Your task to perform on an android device: remove spam from my inbox in the gmail app Image 0: 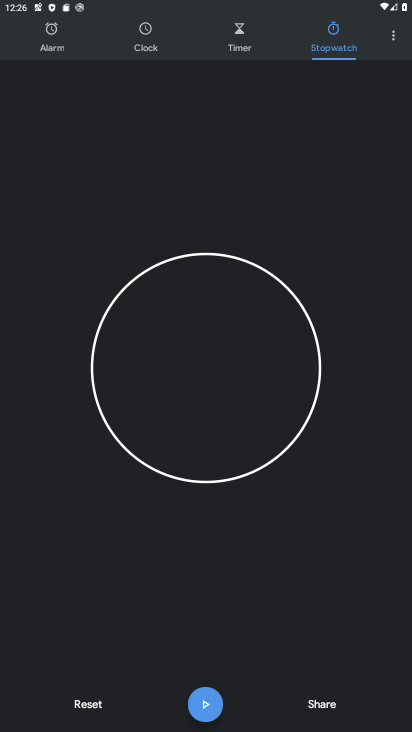
Step 0: press home button
Your task to perform on an android device: remove spam from my inbox in the gmail app Image 1: 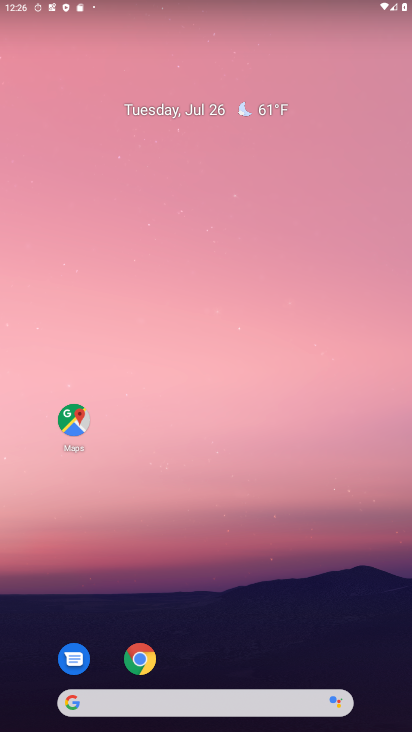
Step 1: drag from (38, 682) to (115, 304)
Your task to perform on an android device: remove spam from my inbox in the gmail app Image 2: 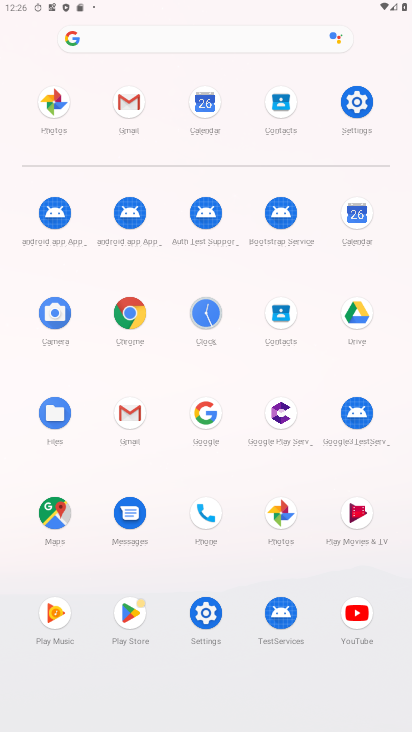
Step 2: click (110, 404)
Your task to perform on an android device: remove spam from my inbox in the gmail app Image 3: 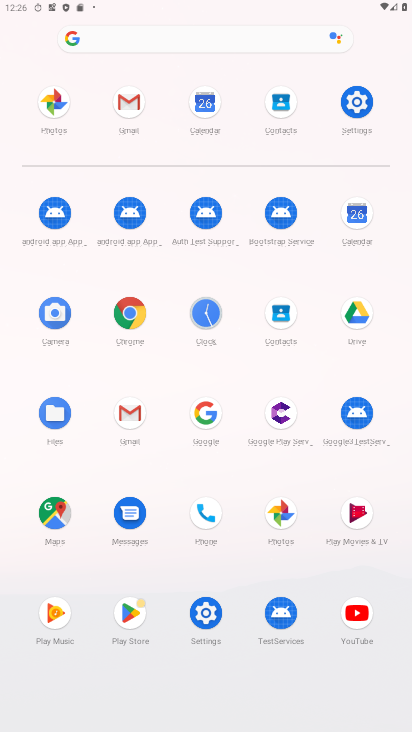
Step 3: click (115, 409)
Your task to perform on an android device: remove spam from my inbox in the gmail app Image 4: 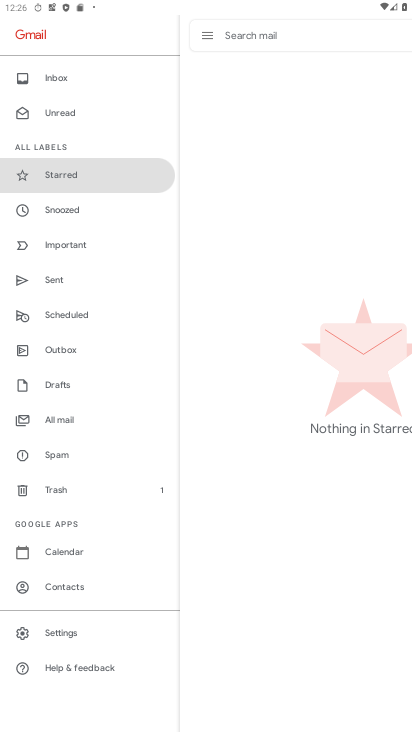
Step 4: click (77, 460)
Your task to perform on an android device: remove spam from my inbox in the gmail app Image 5: 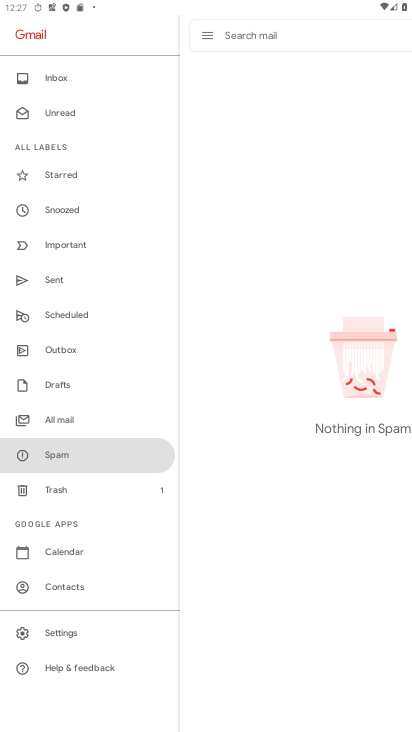
Step 5: task complete